Your task to perform on an android device: Go to calendar. Show me events next week Image 0: 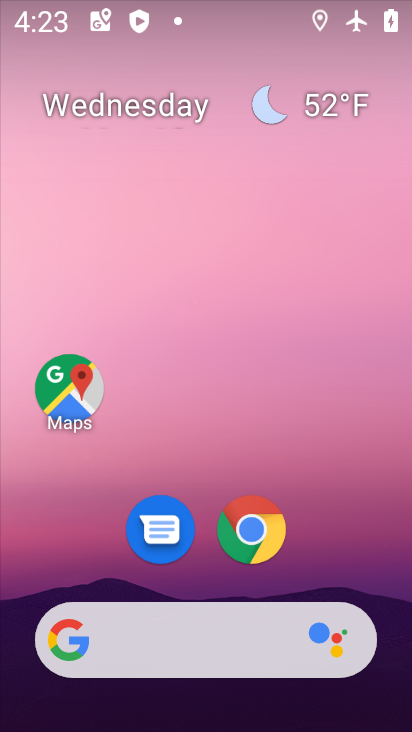
Step 0: drag from (338, 583) to (225, 192)
Your task to perform on an android device: Go to calendar. Show me events next week Image 1: 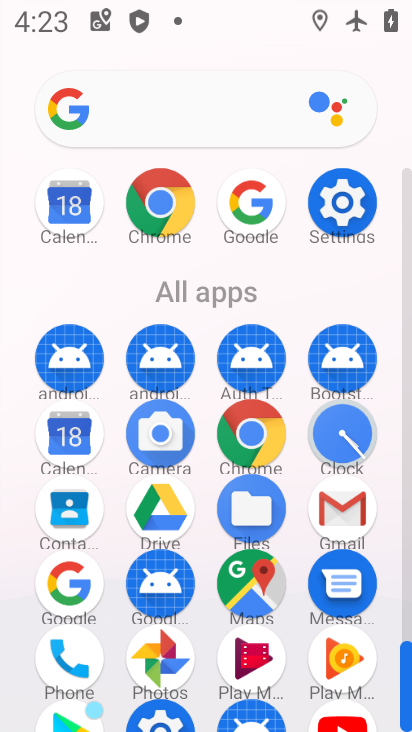
Step 1: click (67, 434)
Your task to perform on an android device: Go to calendar. Show me events next week Image 2: 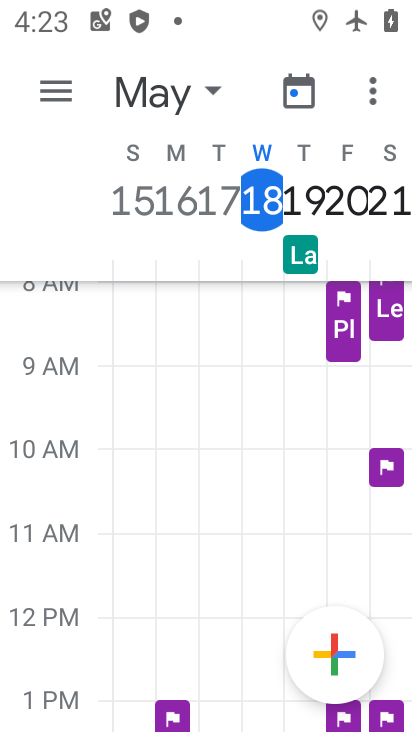
Step 2: click (299, 91)
Your task to perform on an android device: Go to calendar. Show me events next week Image 3: 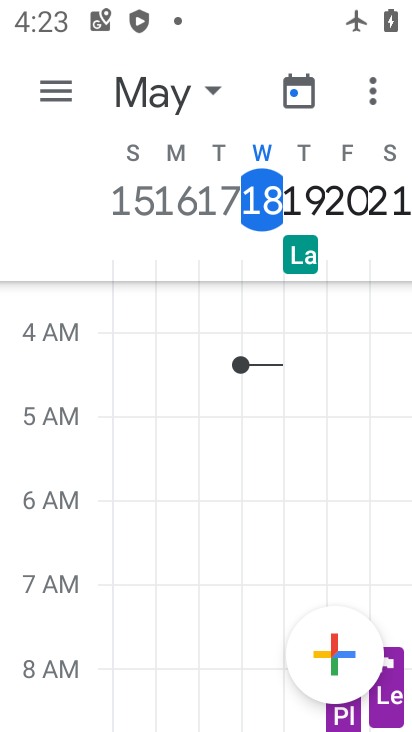
Step 3: click (214, 93)
Your task to perform on an android device: Go to calendar. Show me events next week Image 4: 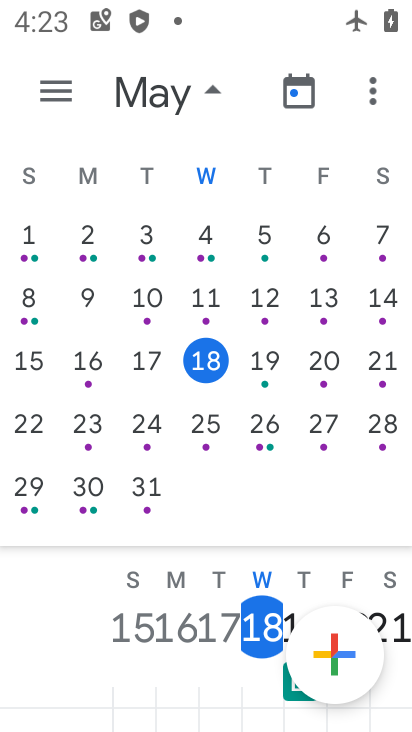
Step 4: click (85, 424)
Your task to perform on an android device: Go to calendar. Show me events next week Image 5: 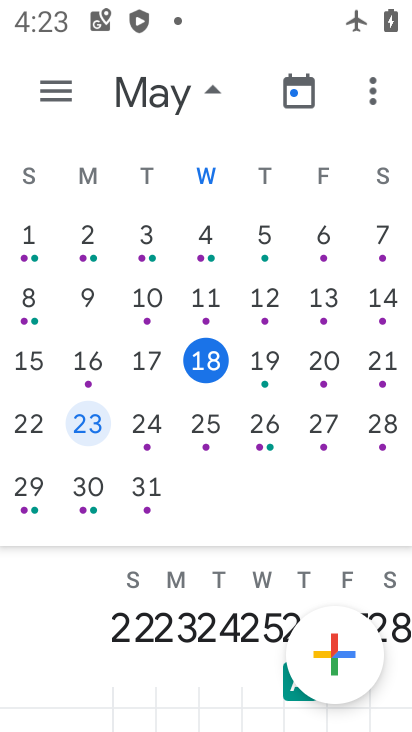
Step 5: click (59, 86)
Your task to perform on an android device: Go to calendar. Show me events next week Image 6: 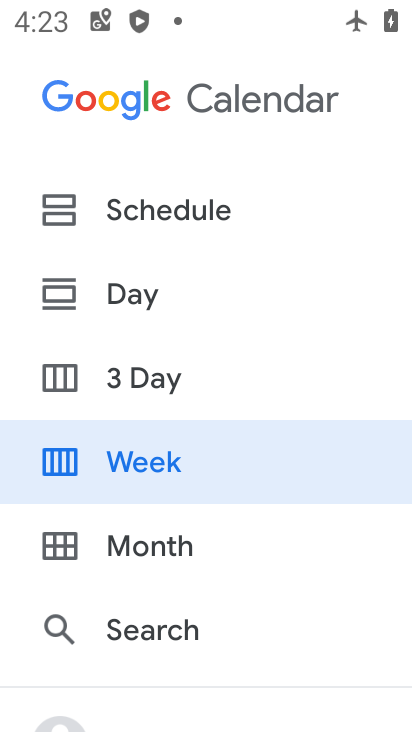
Step 6: click (112, 451)
Your task to perform on an android device: Go to calendar. Show me events next week Image 7: 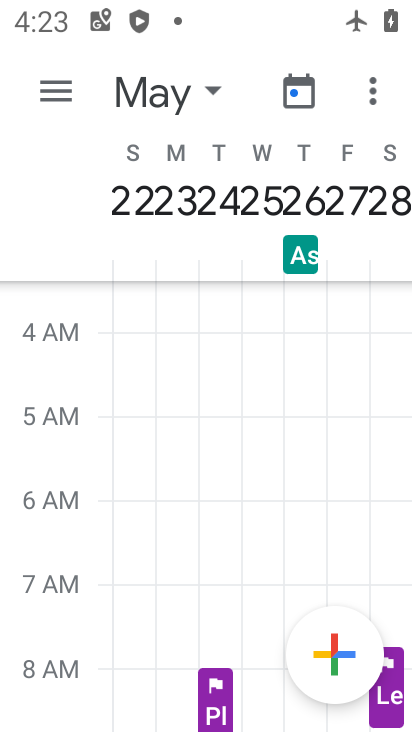
Step 7: task complete